Your task to perform on an android device: change the clock style Image 0: 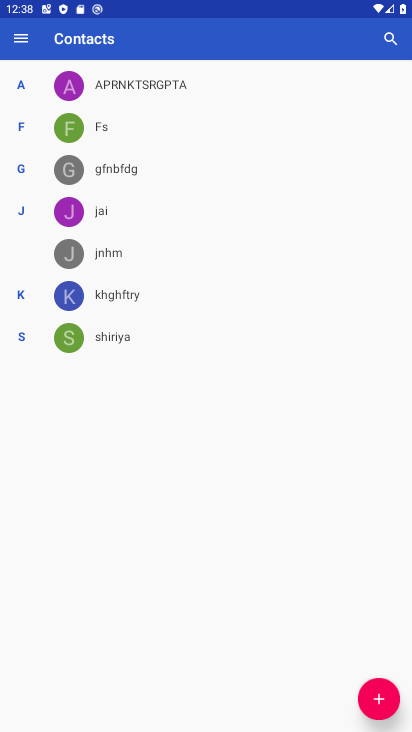
Step 0: press home button
Your task to perform on an android device: change the clock style Image 1: 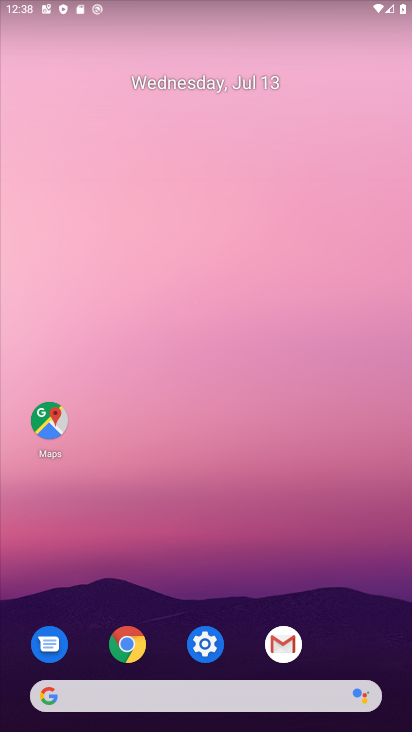
Step 1: drag from (244, 706) to (362, 116)
Your task to perform on an android device: change the clock style Image 2: 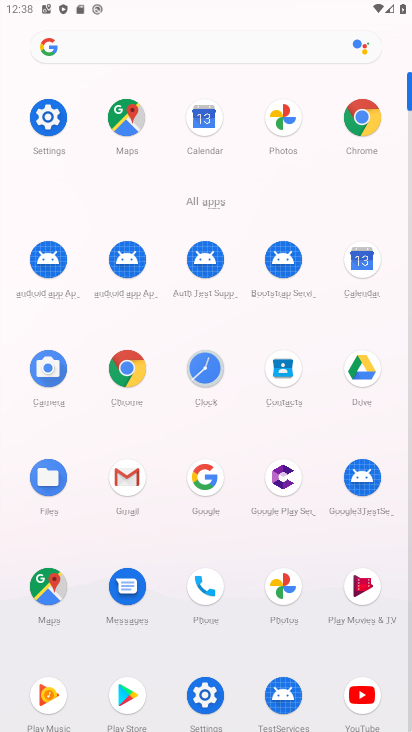
Step 2: click (213, 373)
Your task to perform on an android device: change the clock style Image 3: 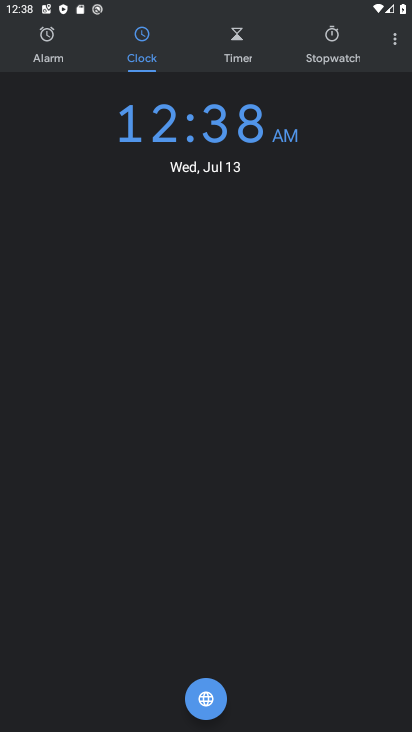
Step 3: click (389, 44)
Your task to perform on an android device: change the clock style Image 4: 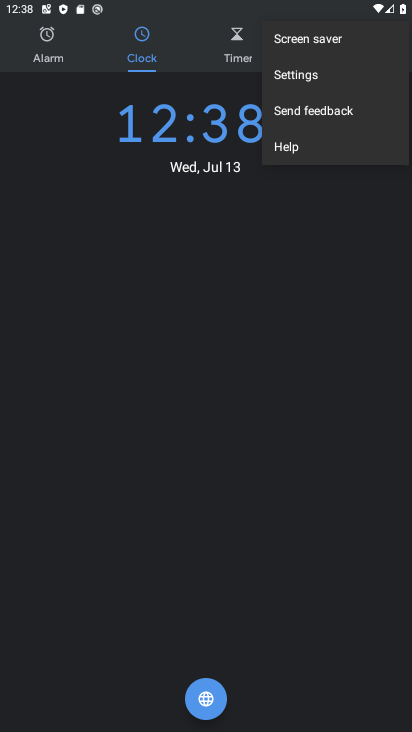
Step 4: click (284, 81)
Your task to perform on an android device: change the clock style Image 5: 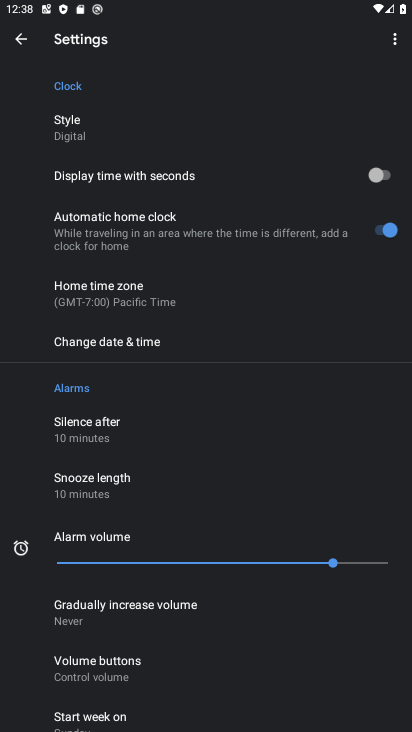
Step 5: click (118, 138)
Your task to perform on an android device: change the clock style Image 6: 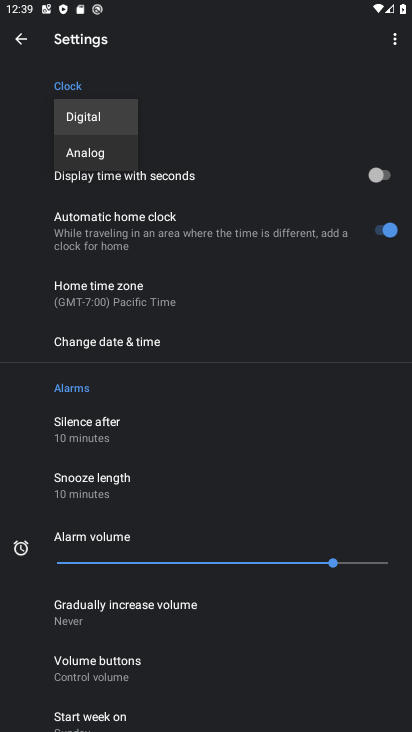
Step 6: click (106, 147)
Your task to perform on an android device: change the clock style Image 7: 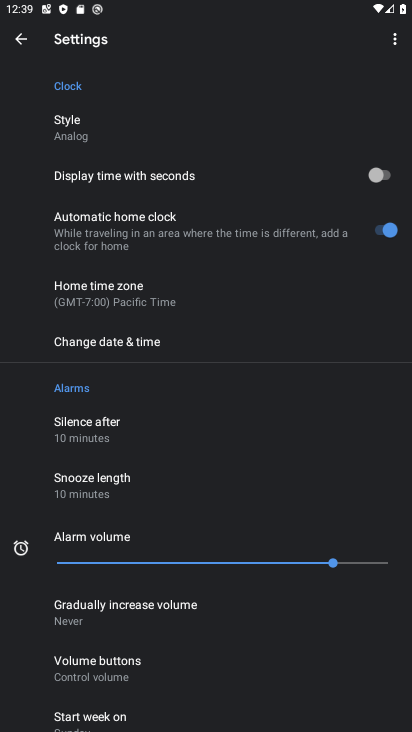
Step 7: task complete